Your task to perform on an android device: Open the calendar app, open the side menu, and click the "Day" option Image 0: 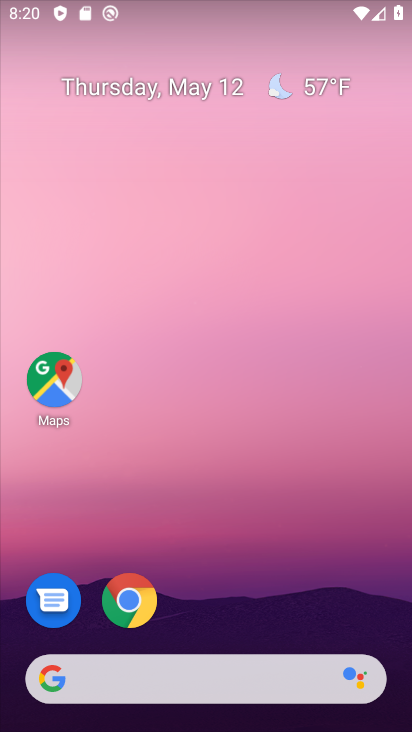
Step 0: drag from (319, 482) to (258, 55)
Your task to perform on an android device: Open the calendar app, open the side menu, and click the "Day" option Image 1: 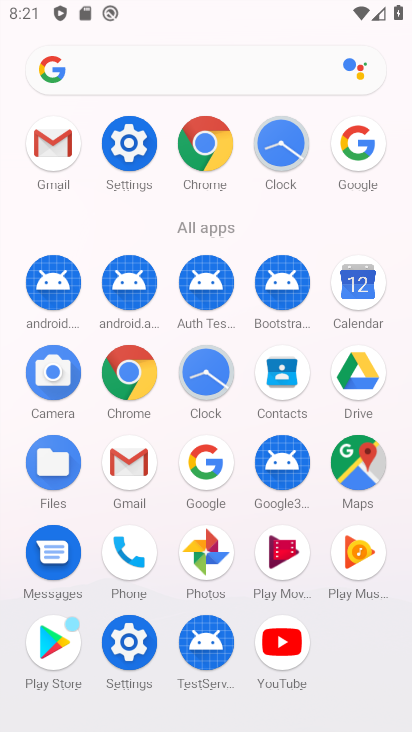
Step 1: click (353, 294)
Your task to perform on an android device: Open the calendar app, open the side menu, and click the "Day" option Image 2: 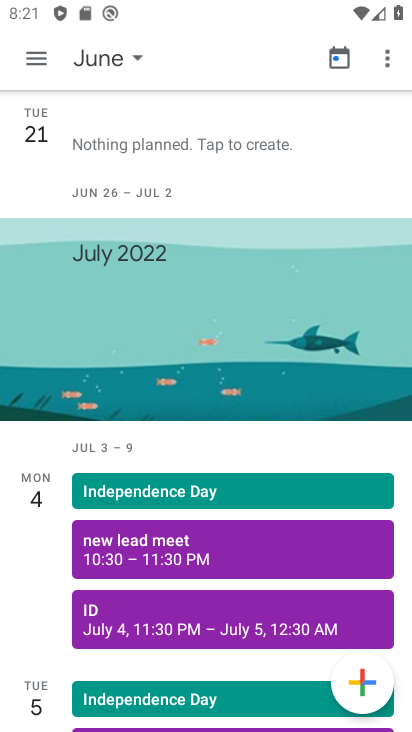
Step 2: click (41, 59)
Your task to perform on an android device: Open the calendar app, open the side menu, and click the "Day" option Image 3: 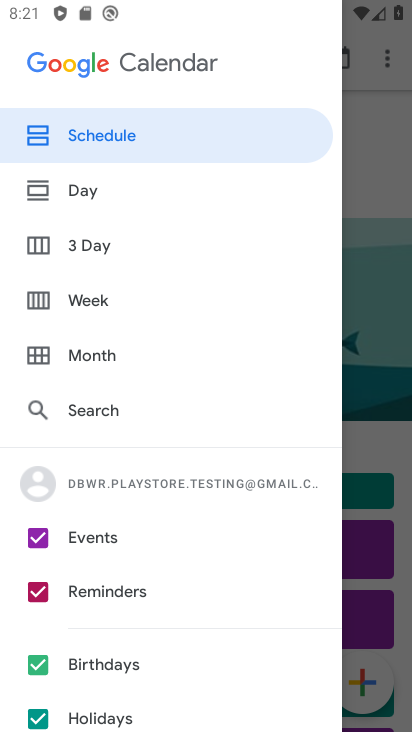
Step 3: click (65, 194)
Your task to perform on an android device: Open the calendar app, open the side menu, and click the "Day" option Image 4: 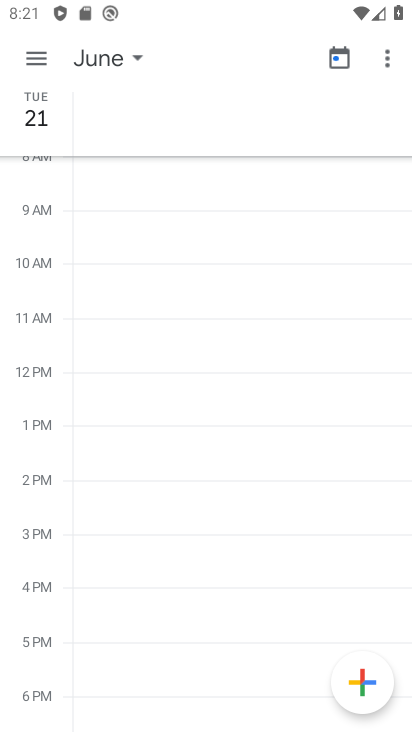
Step 4: task complete